Your task to perform on an android device: Is it going to rain today? Image 0: 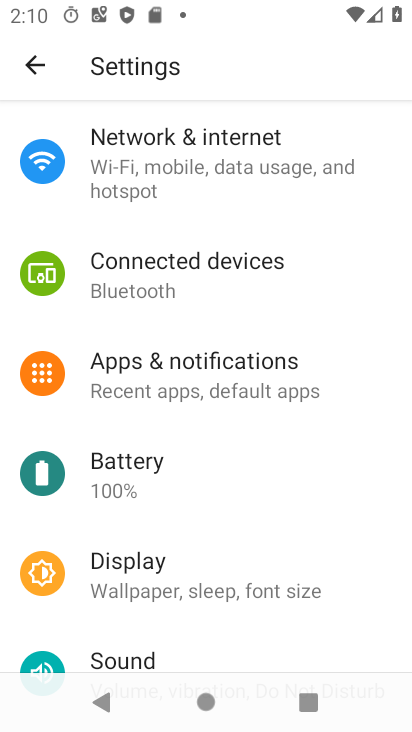
Step 0: press home button
Your task to perform on an android device: Is it going to rain today? Image 1: 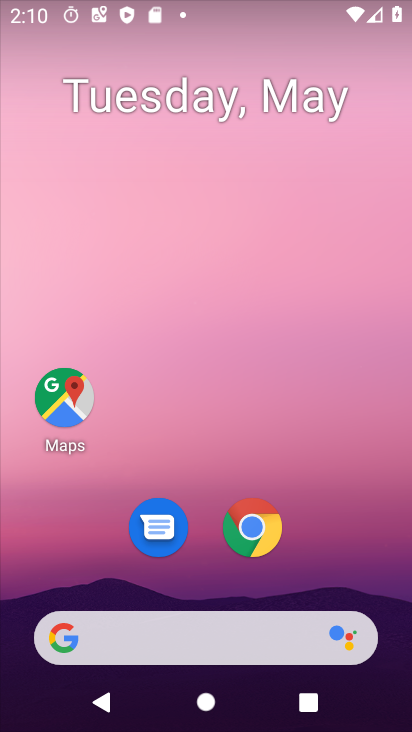
Step 1: drag from (250, 695) to (278, 118)
Your task to perform on an android device: Is it going to rain today? Image 2: 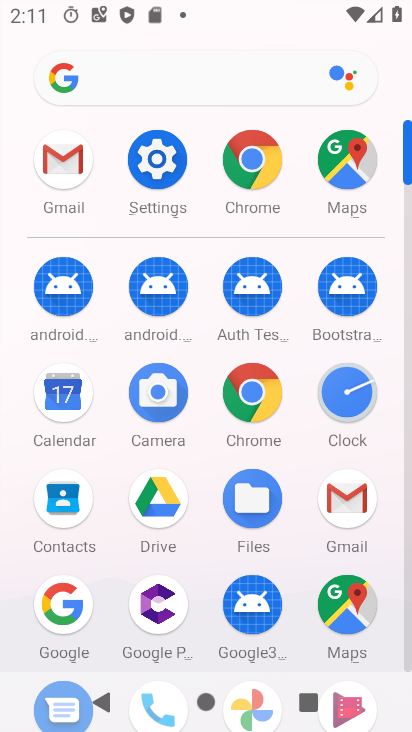
Step 2: click (164, 92)
Your task to perform on an android device: Is it going to rain today? Image 3: 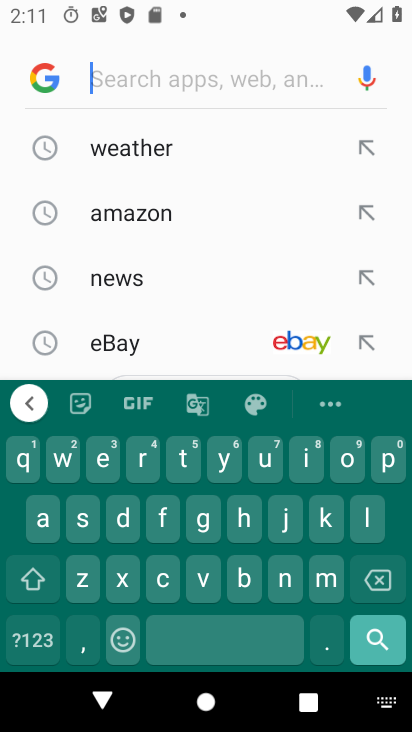
Step 3: click (143, 459)
Your task to perform on an android device: Is it going to rain today? Image 4: 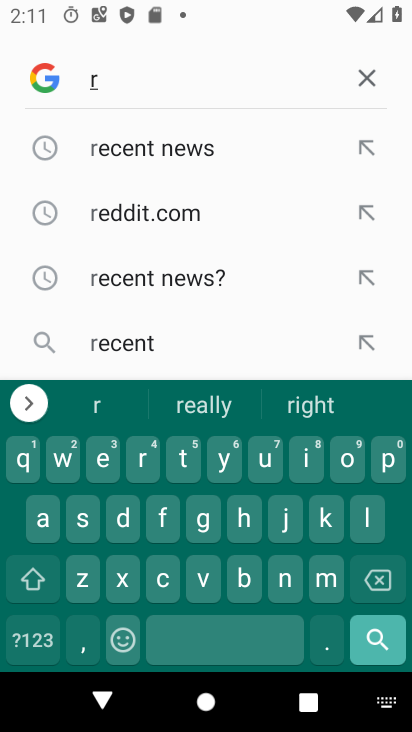
Step 4: click (41, 519)
Your task to perform on an android device: Is it going to rain today? Image 5: 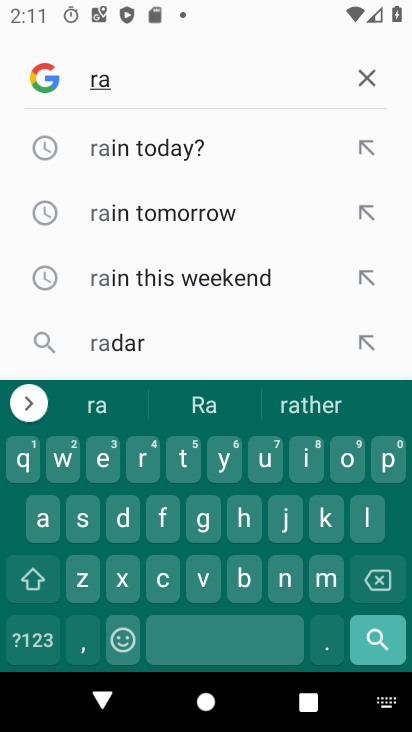
Step 5: click (173, 153)
Your task to perform on an android device: Is it going to rain today? Image 6: 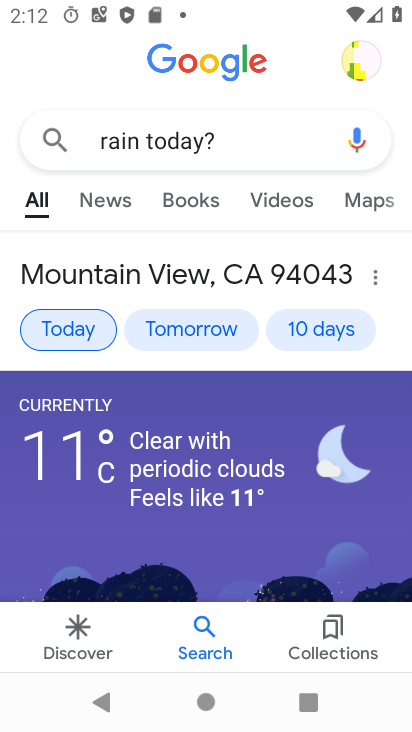
Step 6: task complete